Your task to perform on an android device: toggle airplane mode Image 0: 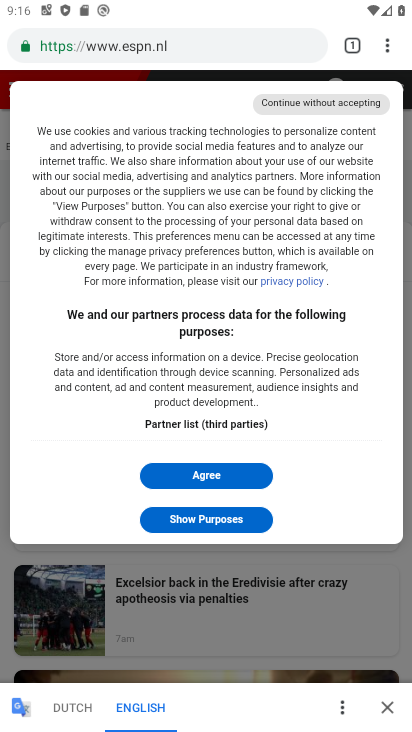
Step 0: drag from (393, 7) to (345, 479)
Your task to perform on an android device: toggle airplane mode Image 1: 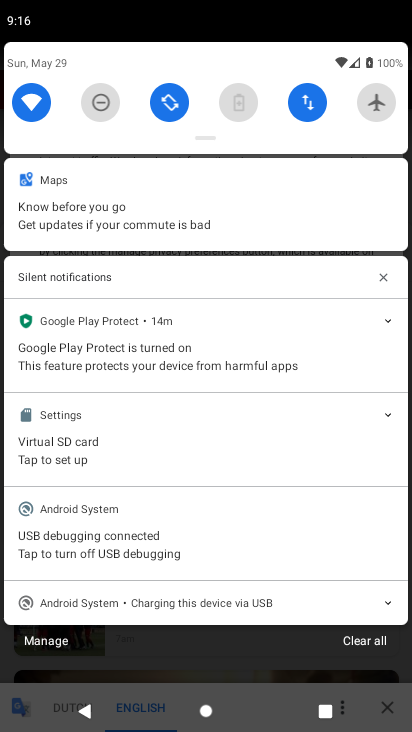
Step 1: click (372, 102)
Your task to perform on an android device: toggle airplane mode Image 2: 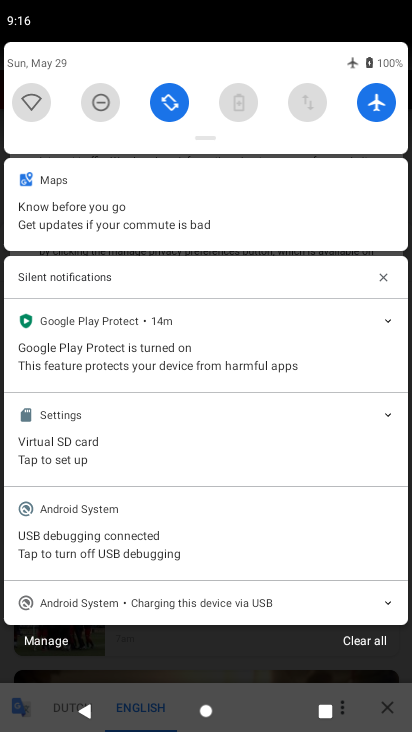
Step 2: task complete